Your task to perform on an android device: Open Google Chrome and click the shortcut for Amazon.com Image 0: 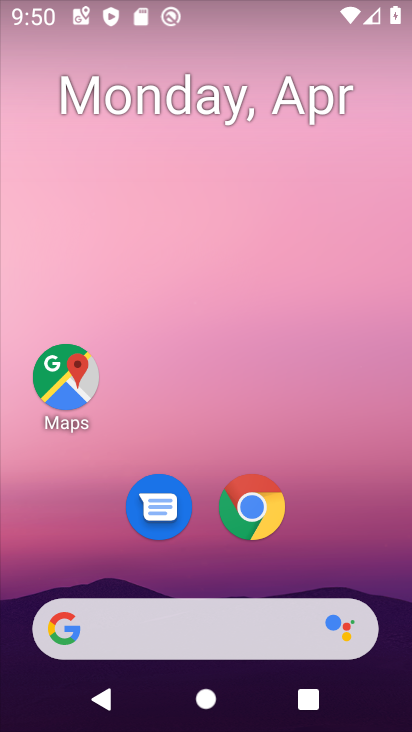
Step 0: click (255, 519)
Your task to perform on an android device: Open Google Chrome and click the shortcut for Amazon.com Image 1: 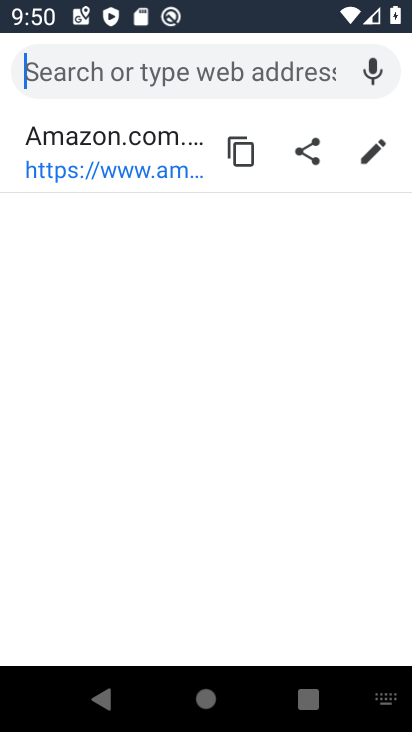
Step 1: press back button
Your task to perform on an android device: Open Google Chrome and click the shortcut for Amazon.com Image 2: 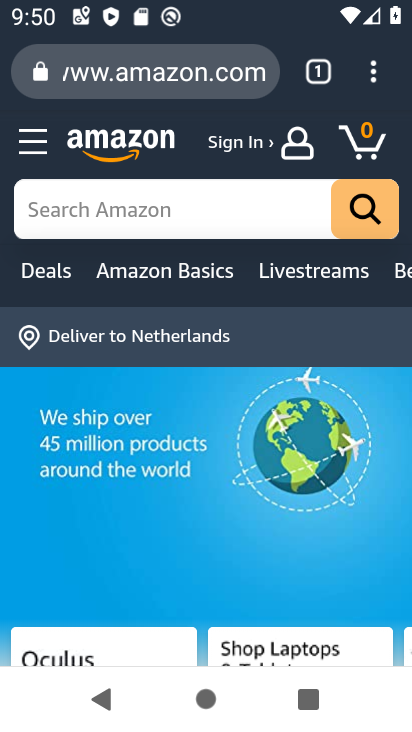
Step 2: click (329, 75)
Your task to perform on an android device: Open Google Chrome and click the shortcut for Amazon.com Image 3: 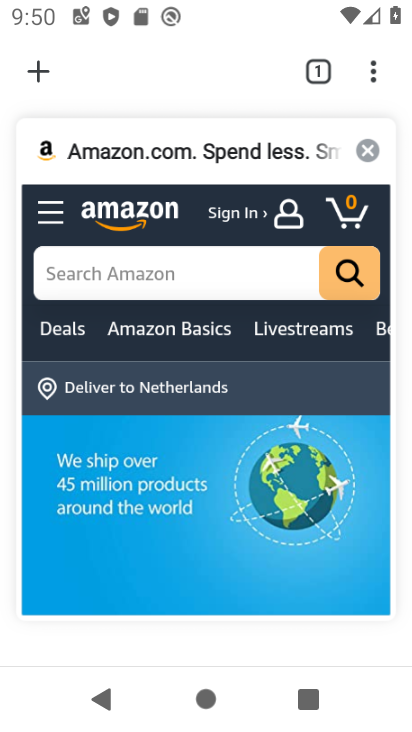
Step 3: task complete